Your task to perform on an android device: turn on location history Image 0: 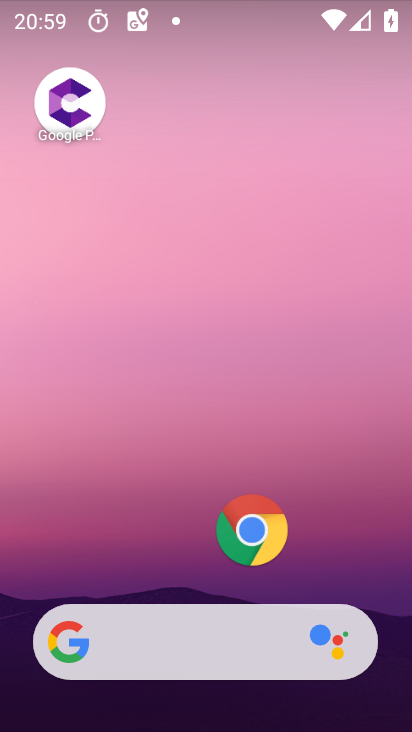
Step 0: drag from (161, 544) to (211, 40)
Your task to perform on an android device: turn on location history Image 1: 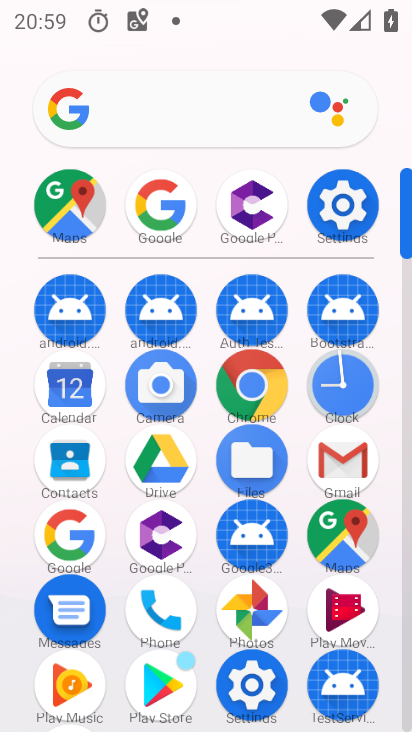
Step 1: click (337, 193)
Your task to perform on an android device: turn on location history Image 2: 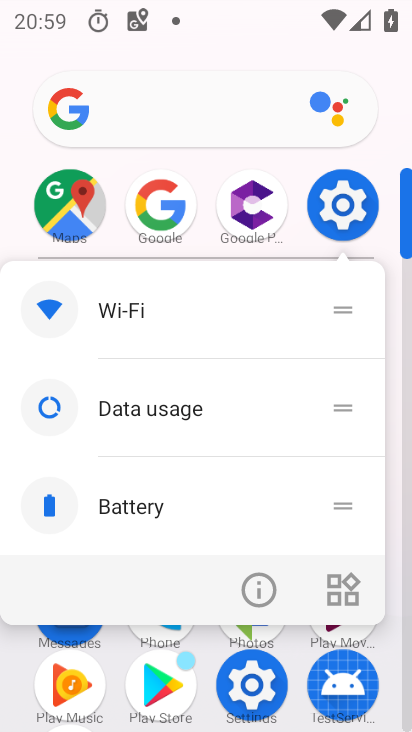
Step 2: click (339, 211)
Your task to perform on an android device: turn on location history Image 3: 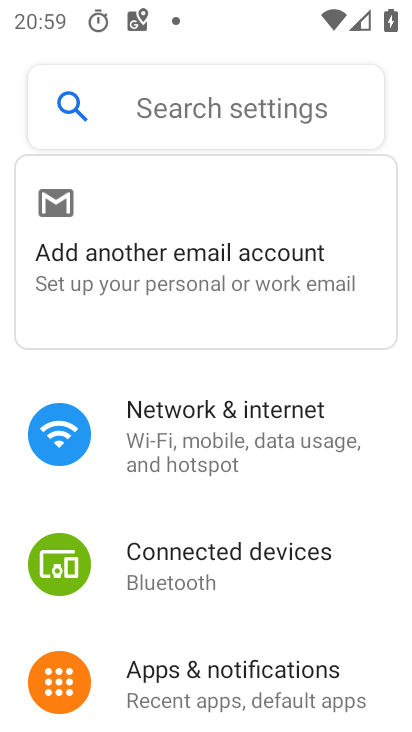
Step 3: drag from (274, 623) to (267, 7)
Your task to perform on an android device: turn on location history Image 4: 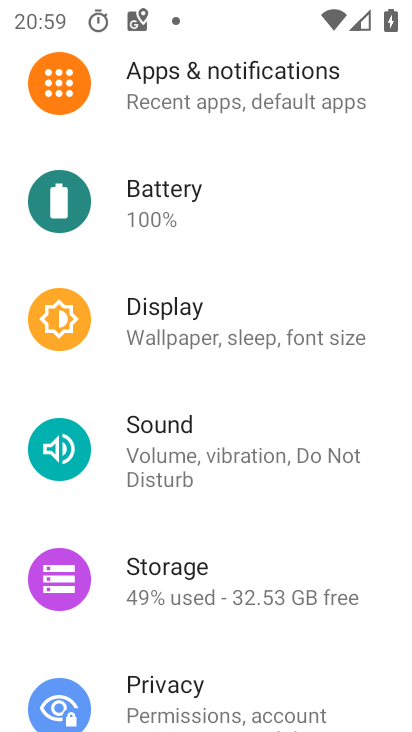
Step 4: drag from (264, 588) to (223, 103)
Your task to perform on an android device: turn on location history Image 5: 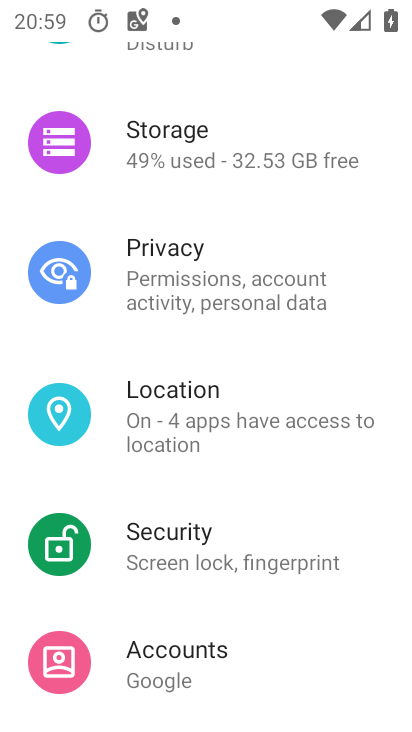
Step 5: click (204, 416)
Your task to perform on an android device: turn on location history Image 6: 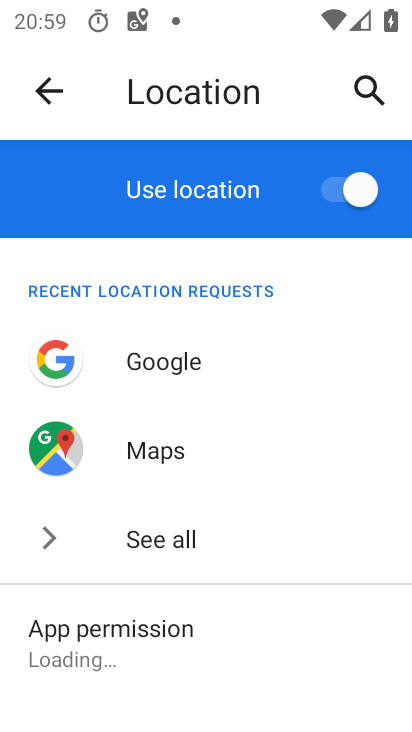
Step 6: drag from (291, 549) to (212, 127)
Your task to perform on an android device: turn on location history Image 7: 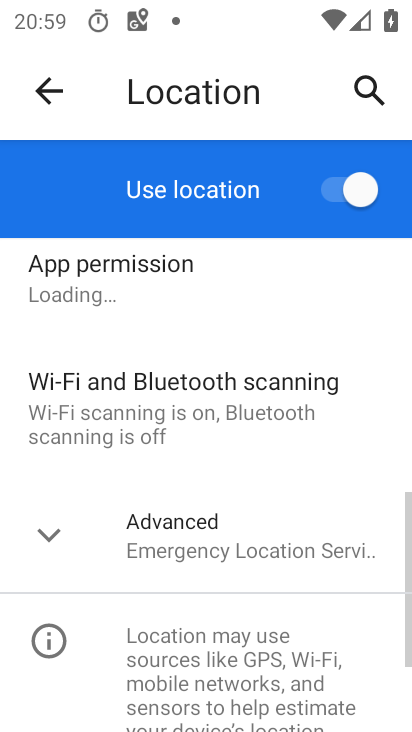
Step 7: click (175, 588)
Your task to perform on an android device: turn on location history Image 8: 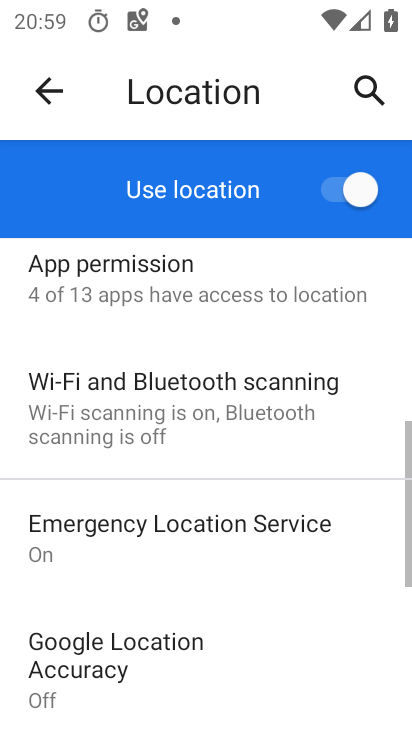
Step 8: drag from (202, 601) to (209, 328)
Your task to perform on an android device: turn on location history Image 9: 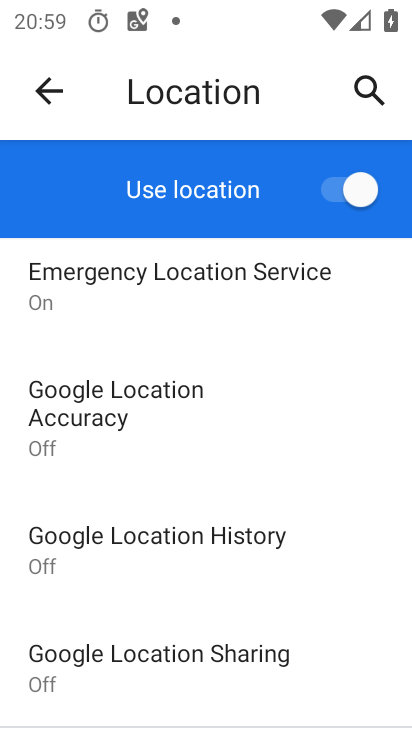
Step 9: click (180, 531)
Your task to perform on an android device: turn on location history Image 10: 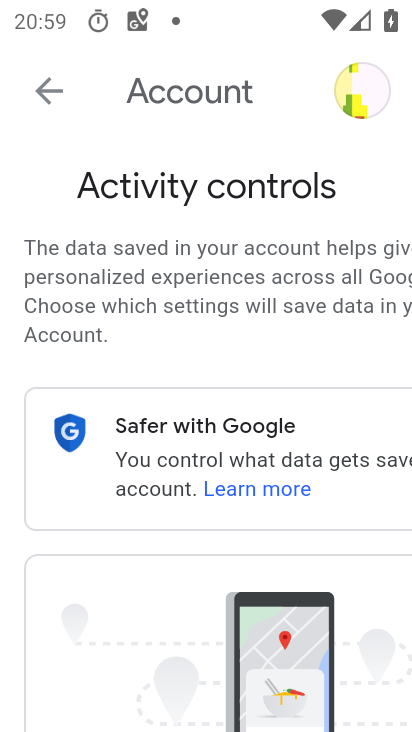
Step 10: task complete